Your task to perform on an android device: uninstall "Roku - Official Remote Control" Image 0: 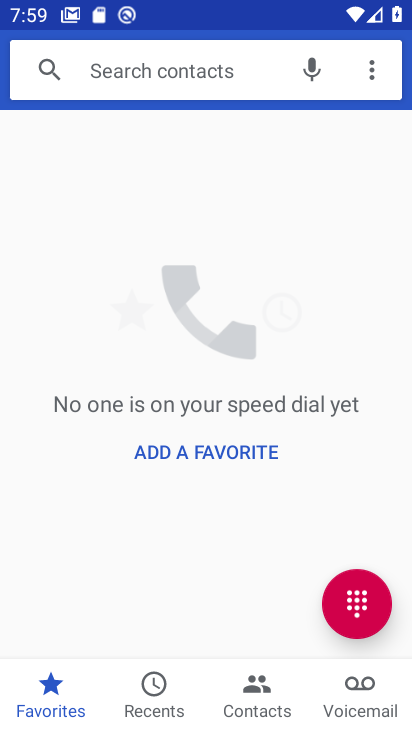
Step 0: press home button
Your task to perform on an android device: uninstall "Roku - Official Remote Control" Image 1: 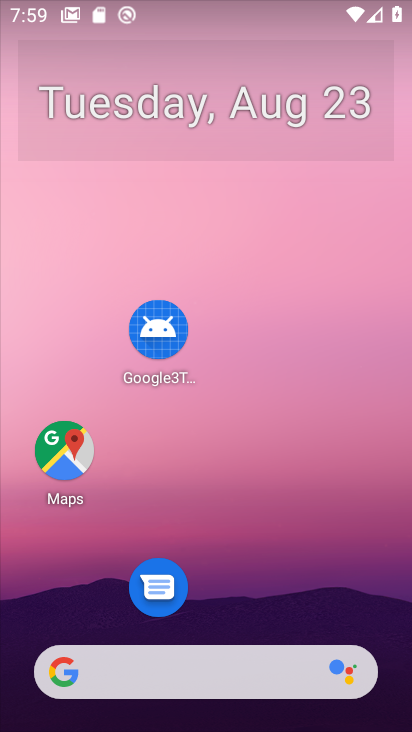
Step 1: drag from (292, 606) to (278, 184)
Your task to perform on an android device: uninstall "Roku - Official Remote Control" Image 2: 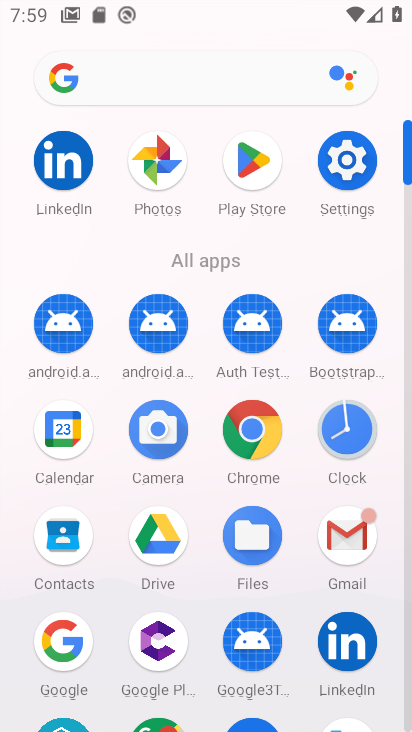
Step 2: click (260, 192)
Your task to perform on an android device: uninstall "Roku - Official Remote Control" Image 3: 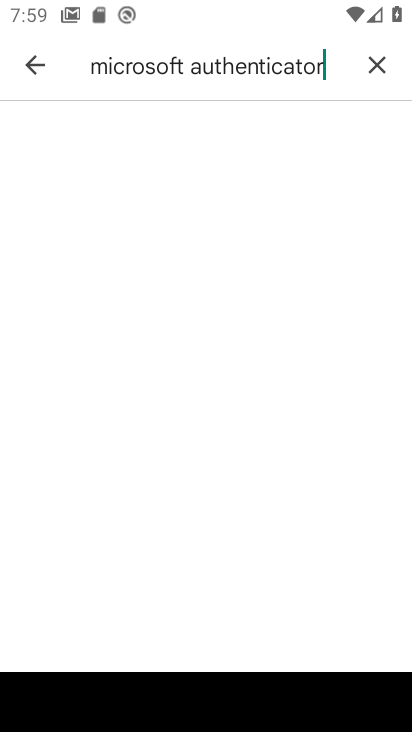
Step 3: click (364, 74)
Your task to perform on an android device: uninstall "Roku - Official Remote Control" Image 4: 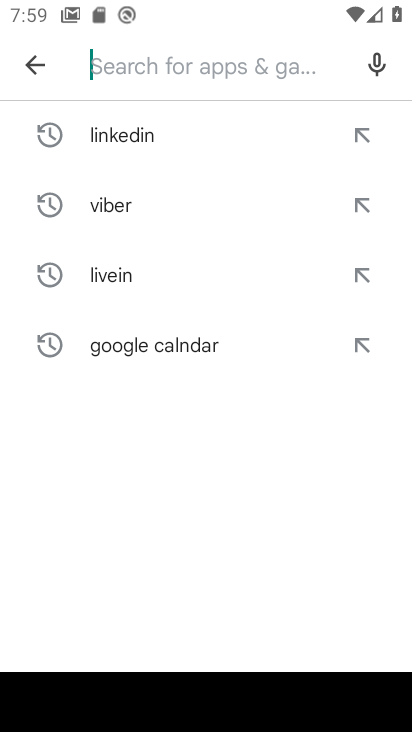
Step 4: type "roku "
Your task to perform on an android device: uninstall "Roku - Official Remote Control" Image 5: 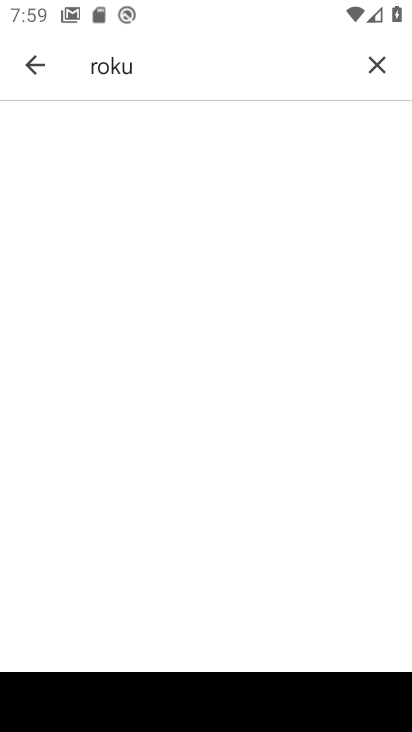
Step 5: task complete